Your task to perform on an android device: Open privacy settings Image 0: 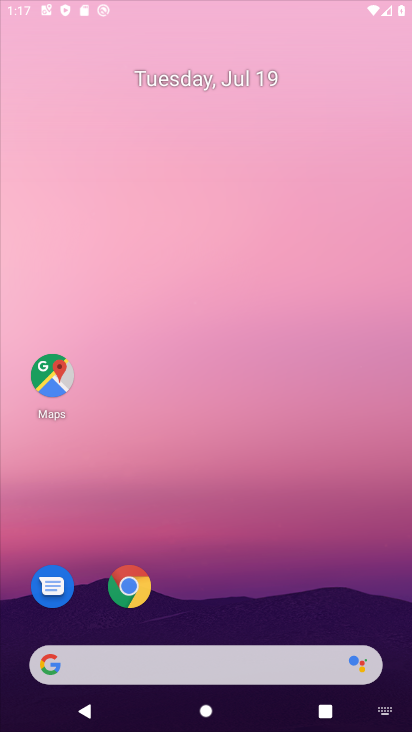
Step 0: drag from (15, 702) to (174, 319)
Your task to perform on an android device: Open privacy settings Image 1: 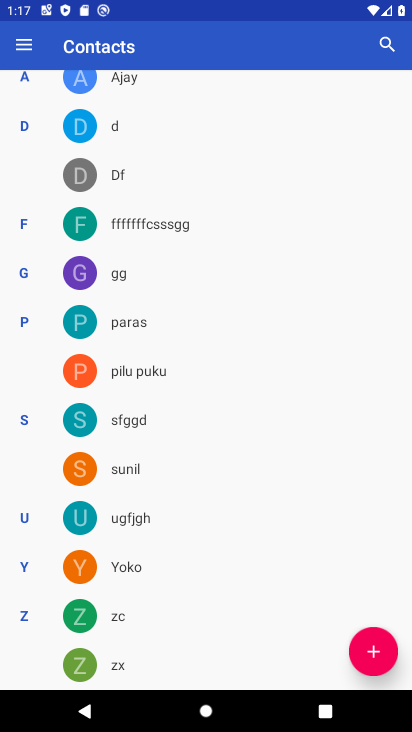
Step 1: press home button
Your task to perform on an android device: Open privacy settings Image 2: 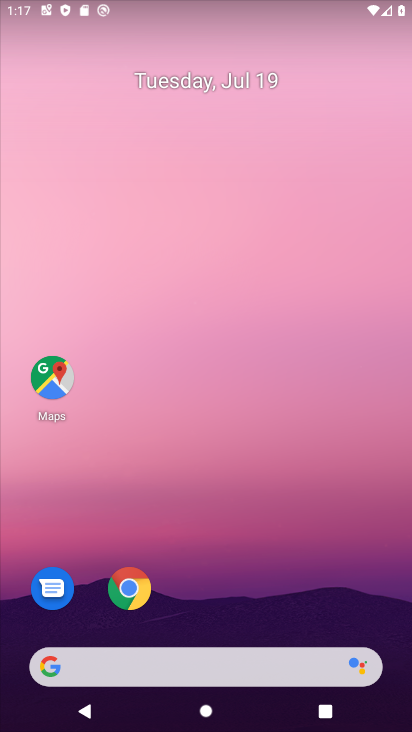
Step 2: drag from (92, 616) to (350, 230)
Your task to perform on an android device: Open privacy settings Image 3: 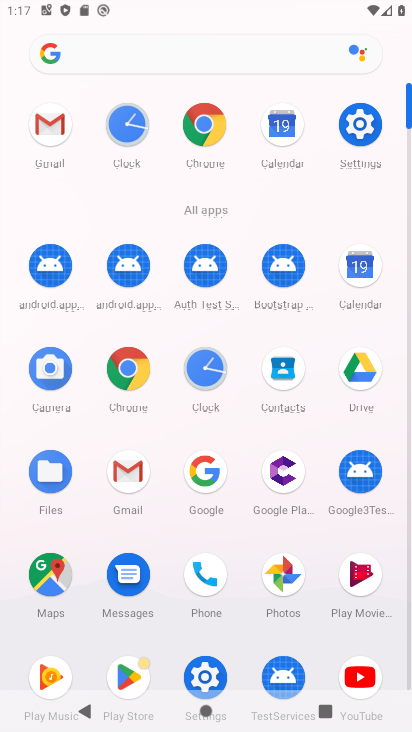
Step 3: click (185, 679)
Your task to perform on an android device: Open privacy settings Image 4: 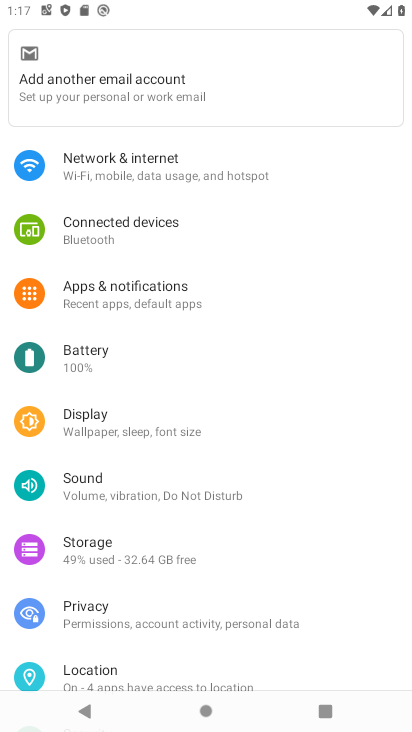
Step 4: click (185, 625)
Your task to perform on an android device: Open privacy settings Image 5: 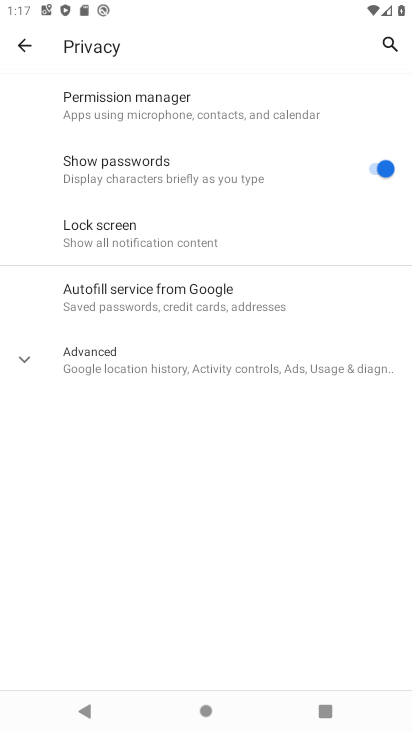
Step 5: task complete